Your task to perform on an android device: turn smart compose on in the gmail app Image 0: 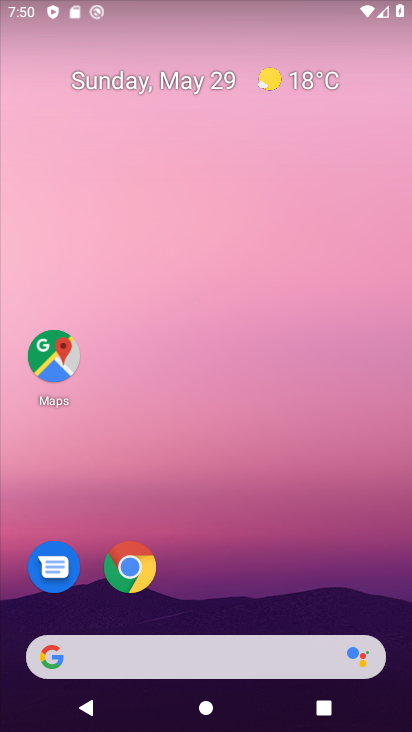
Step 0: click (130, 571)
Your task to perform on an android device: turn smart compose on in the gmail app Image 1: 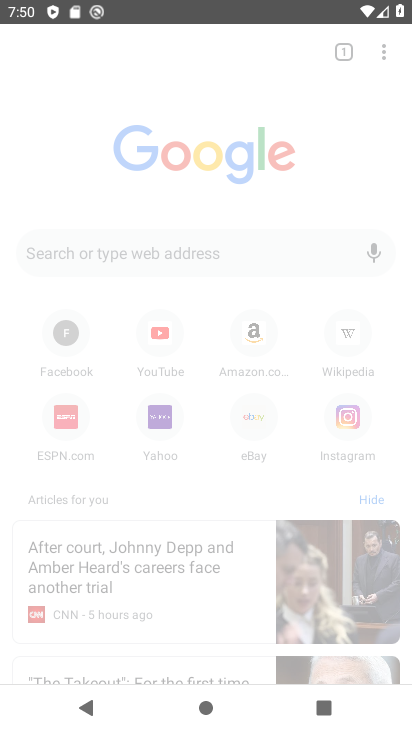
Step 1: press home button
Your task to perform on an android device: turn smart compose on in the gmail app Image 2: 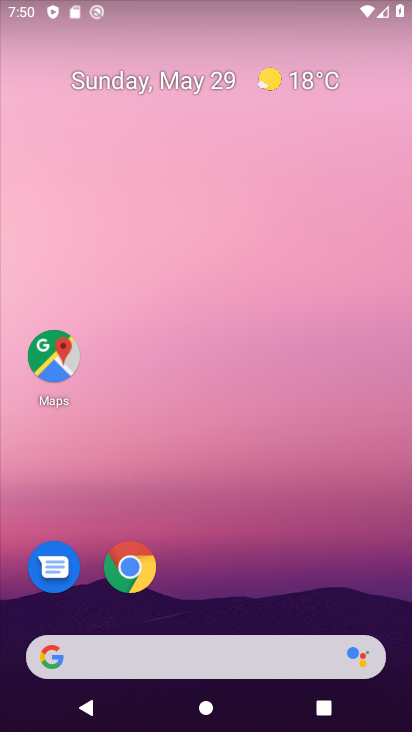
Step 2: drag from (385, 708) to (322, 36)
Your task to perform on an android device: turn smart compose on in the gmail app Image 3: 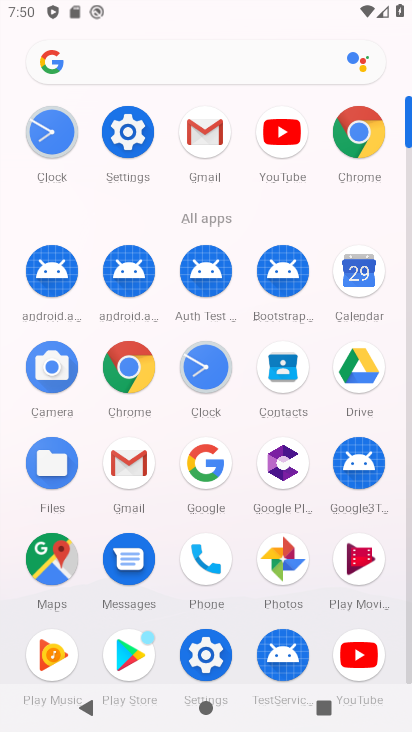
Step 3: click (197, 149)
Your task to perform on an android device: turn smart compose on in the gmail app Image 4: 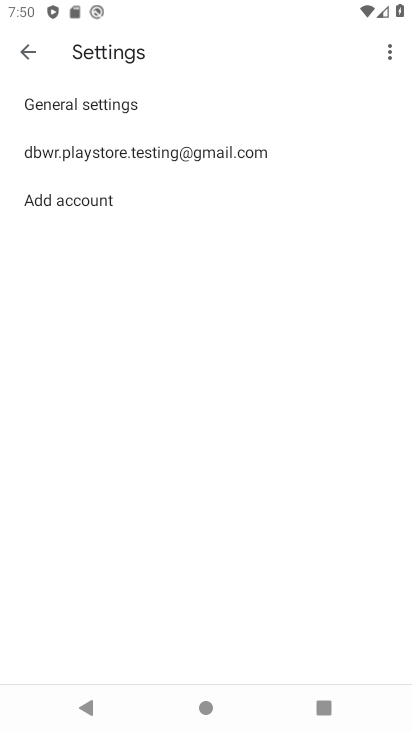
Step 4: click (43, 154)
Your task to perform on an android device: turn smart compose on in the gmail app Image 5: 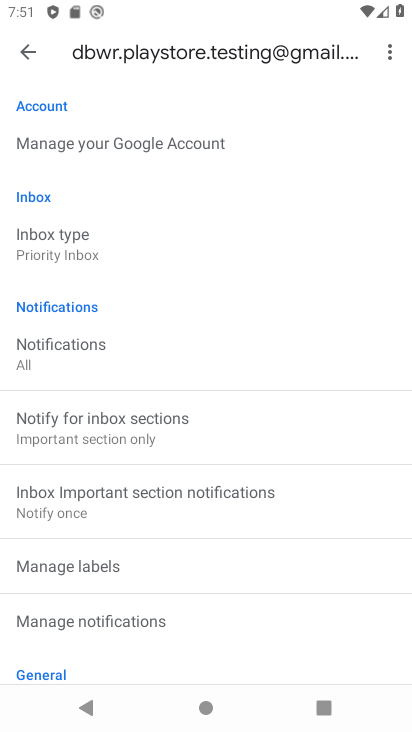
Step 5: task complete